Your task to perform on an android device: View the shopping cart on newegg.com. Search for razer naga on newegg.com, select the first entry, and add it to the cart. Image 0: 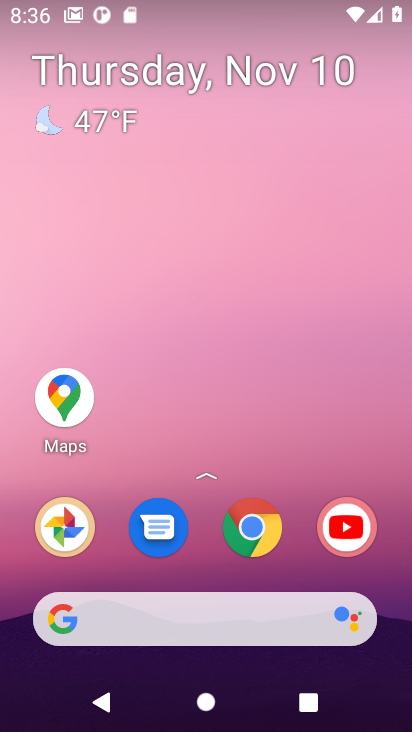
Step 0: click (72, 26)
Your task to perform on an android device: View the shopping cart on newegg.com. Search for razer naga on newegg.com, select the first entry, and add it to the cart. Image 1: 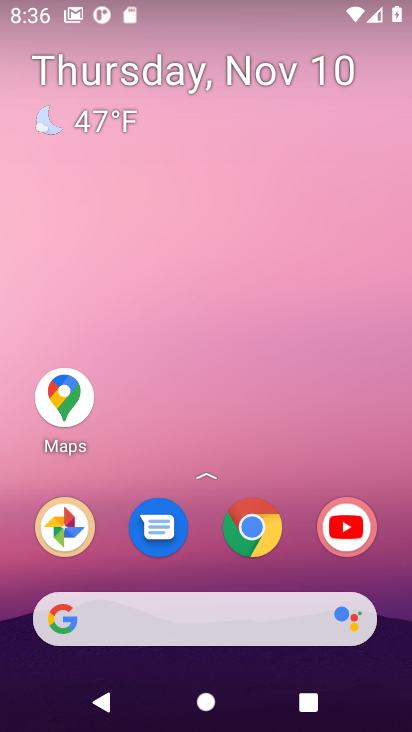
Step 1: drag from (264, 331) to (330, 110)
Your task to perform on an android device: View the shopping cart on newegg.com. Search for razer naga on newegg.com, select the first entry, and add it to the cart. Image 2: 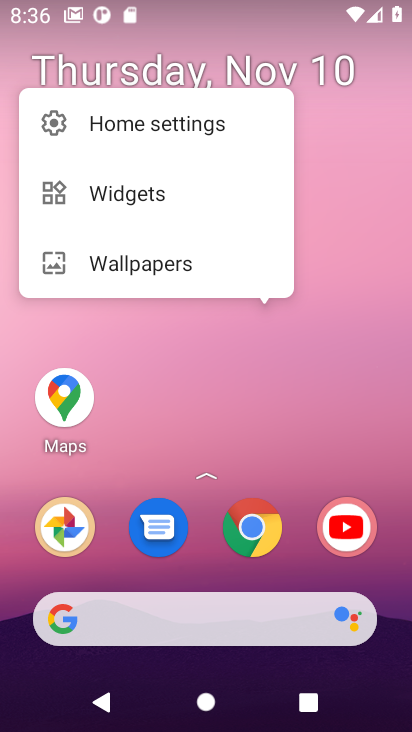
Step 2: click (354, 472)
Your task to perform on an android device: View the shopping cart on newegg.com. Search for razer naga on newegg.com, select the first entry, and add it to the cart. Image 3: 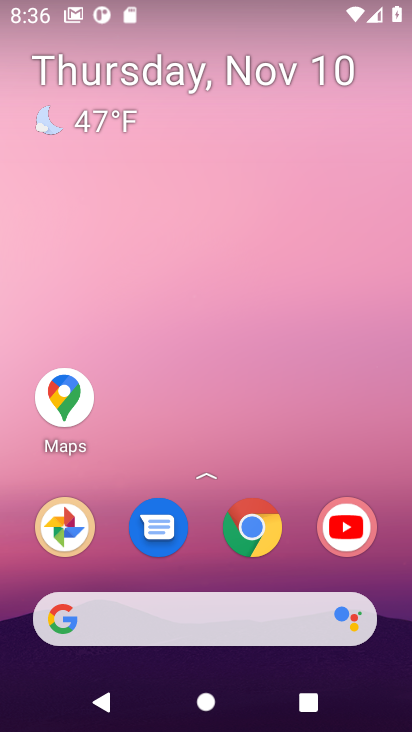
Step 3: drag from (274, 654) to (250, 19)
Your task to perform on an android device: View the shopping cart on newegg.com. Search for razer naga on newegg.com, select the first entry, and add it to the cart. Image 4: 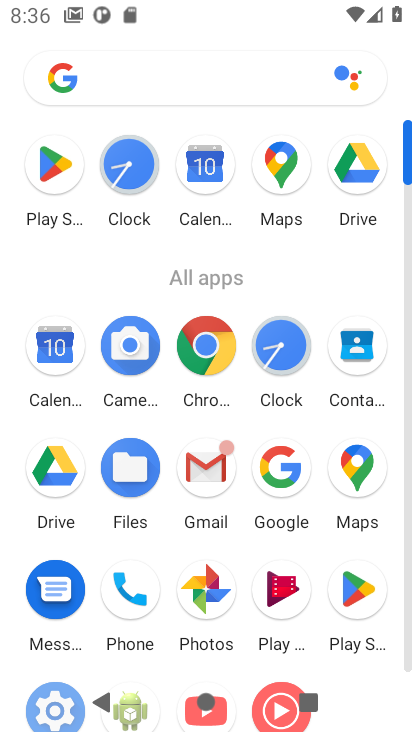
Step 4: click (220, 332)
Your task to perform on an android device: View the shopping cart on newegg.com. Search for razer naga on newegg.com, select the first entry, and add it to the cart. Image 5: 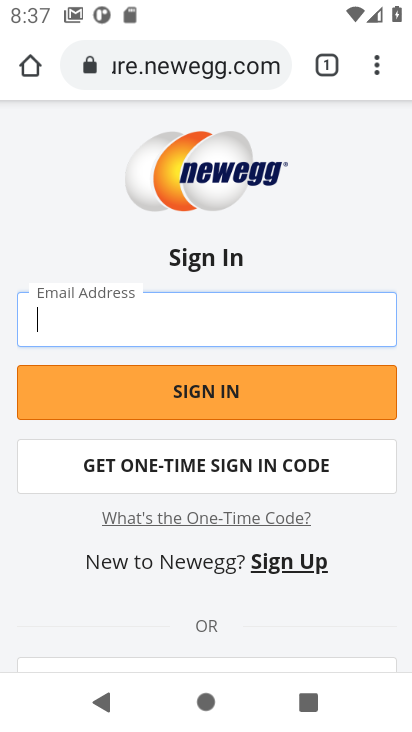
Step 5: press back button
Your task to perform on an android device: View the shopping cart on newegg.com. Search for razer naga on newegg.com, select the first entry, and add it to the cart. Image 6: 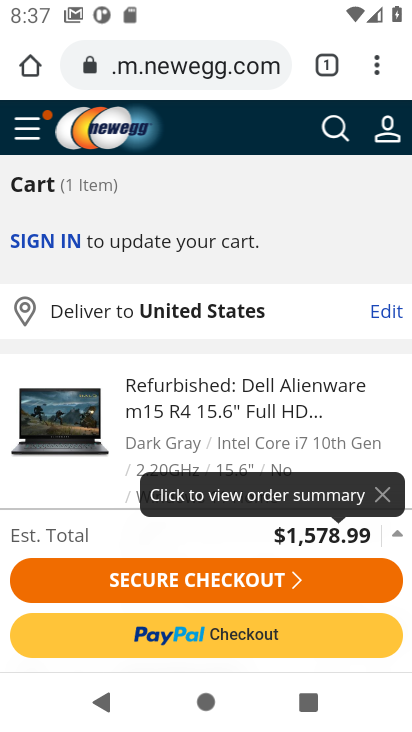
Step 6: press back button
Your task to perform on an android device: View the shopping cart on newegg.com. Search for razer naga on newegg.com, select the first entry, and add it to the cart. Image 7: 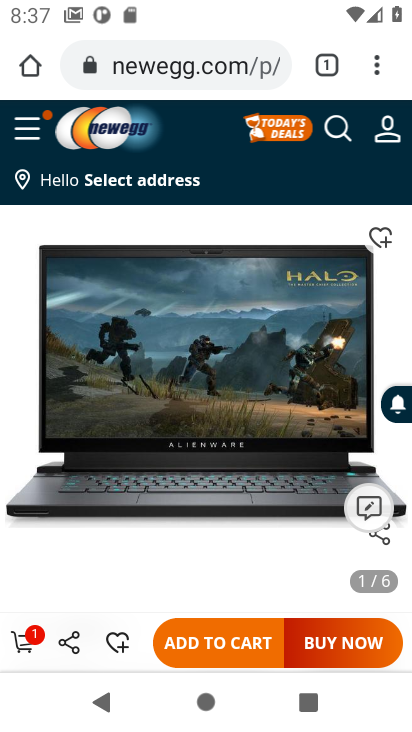
Step 7: click (338, 121)
Your task to perform on an android device: View the shopping cart on newegg.com. Search for razer naga on newegg.com, select the first entry, and add it to the cart. Image 8: 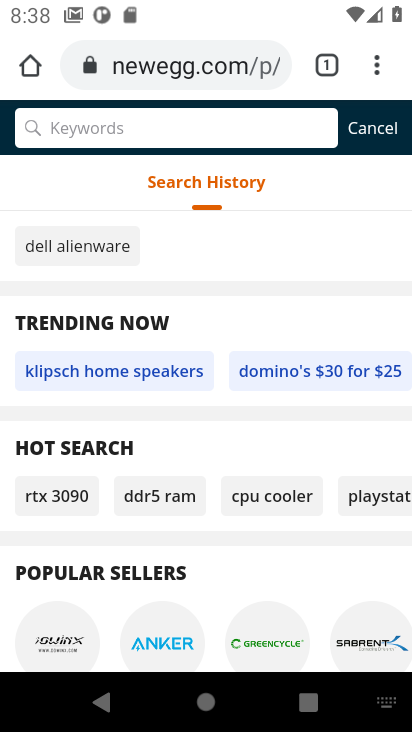
Step 8: drag from (306, 237) to (358, 360)
Your task to perform on an android device: View the shopping cart on newegg.com. Search for razer naga on newegg.com, select the first entry, and add it to the cart. Image 9: 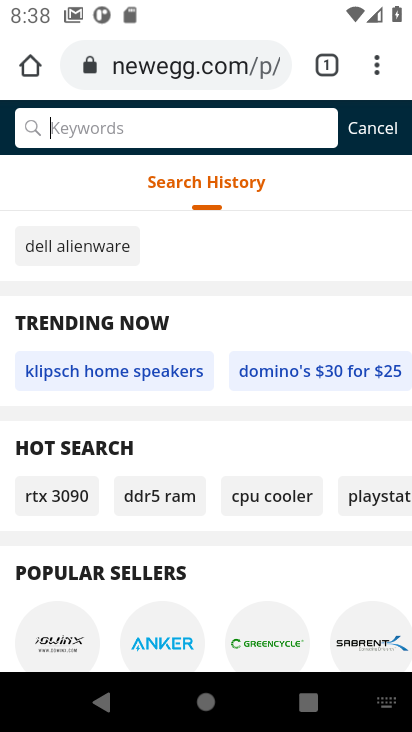
Step 9: drag from (343, 327) to (395, 475)
Your task to perform on an android device: View the shopping cart on newegg.com. Search for razer naga on newegg.com, select the first entry, and add it to the cart. Image 10: 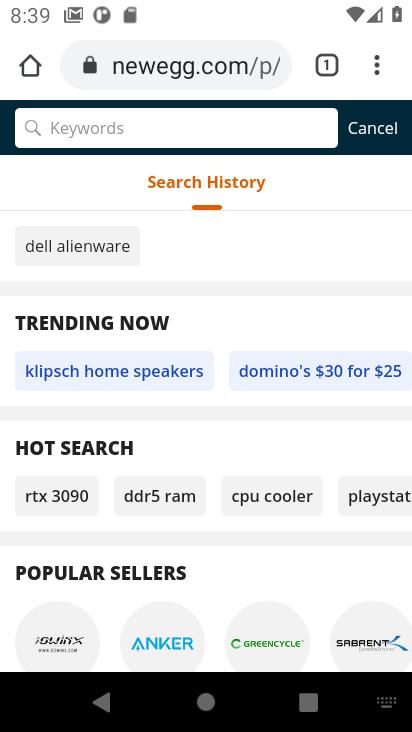
Step 10: type "razer naga"
Your task to perform on an android device: View the shopping cart on newegg.com. Search for razer naga on newegg.com, select the first entry, and add it to the cart. Image 11: 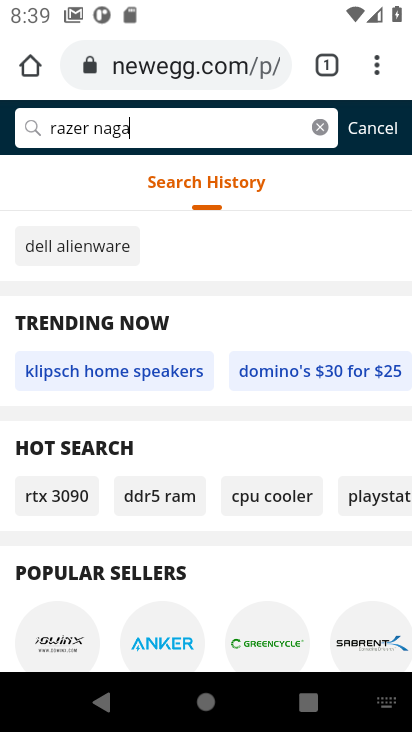
Step 11: press enter
Your task to perform on an android device: View the shopping cart on newegg.com. Search for razer naga on newegg.com, select the first entry, and add it to the cart. Image 12: 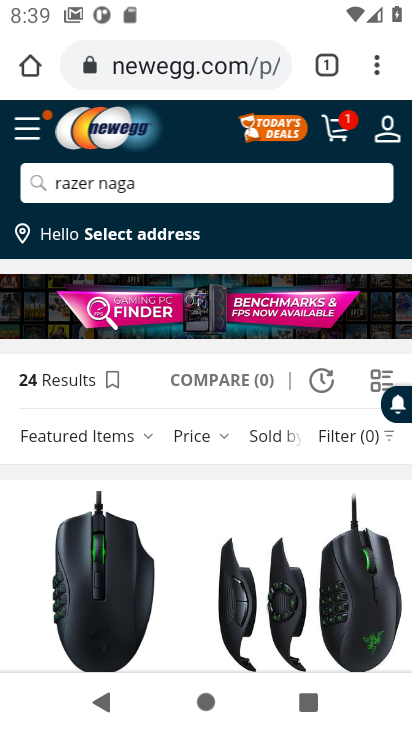
Step 12: drag from (212, 572) to (213, 149)
Your task to perform on an android device: View the shopping cart on newegg.com. Search for razer naga on newegg.com, select the first entry, and add it to the cart. Image 13: 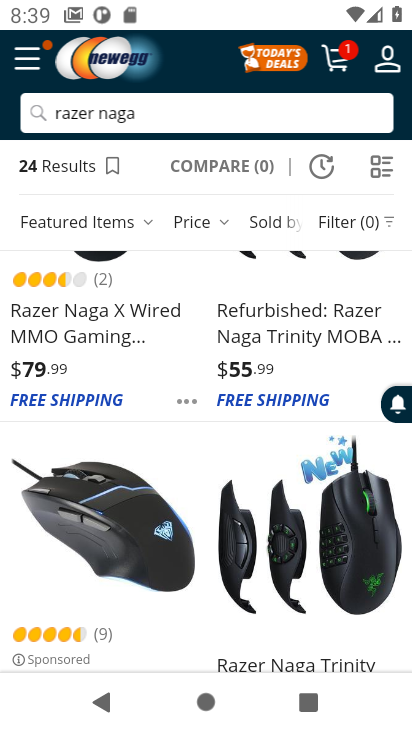
Step 13: click (75, 318)
Your task to perform on an android device: View the shopping cart on newegg.com. Search for razer naga on newegg.com, select the first entry, and add it to the cart. Image 14: 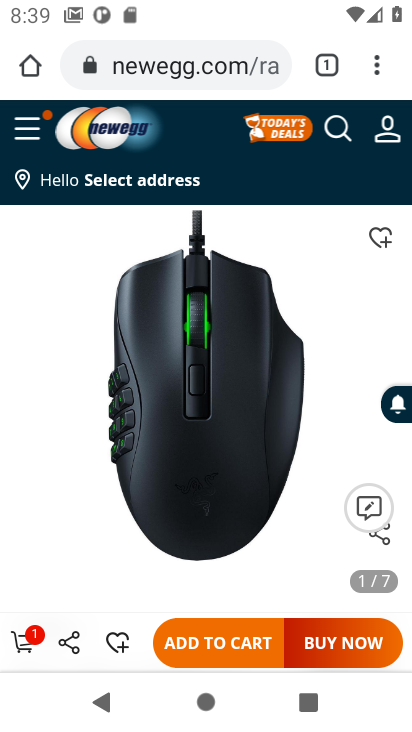
Step 14: click (235, 642)
Your task to perform on an android device: View the shopping cart on newegg.com. Search for razer naga on newegg.com, select the first entry, and add it to the cart. Image 15: 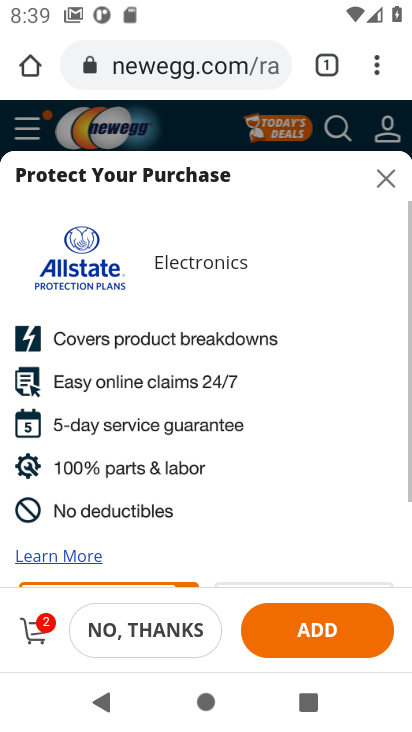
Step 15: click (335, 621)
Your task to perform on an android device: View the shopping cart on newegg.com. Search for razer naga on newegg.com, select the first entry, and add it to the cart. Image 16: 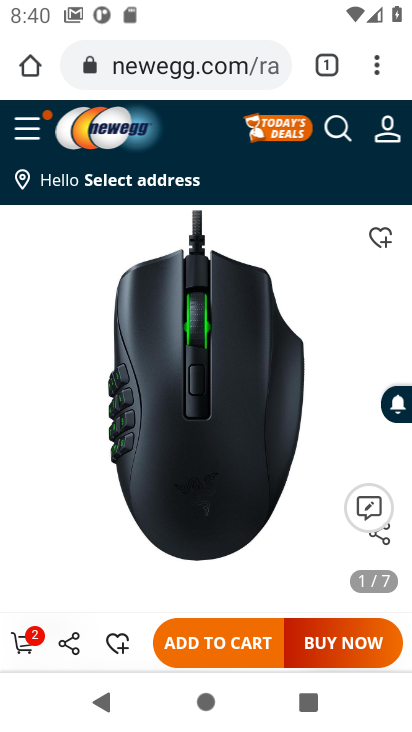
Step 16: click (193, 647)
Your task to perform on an android device: View the shopping cart on newegg.com. Search for razer naga on newegg.com, select the first entry, and add it to the cart. Image 17: 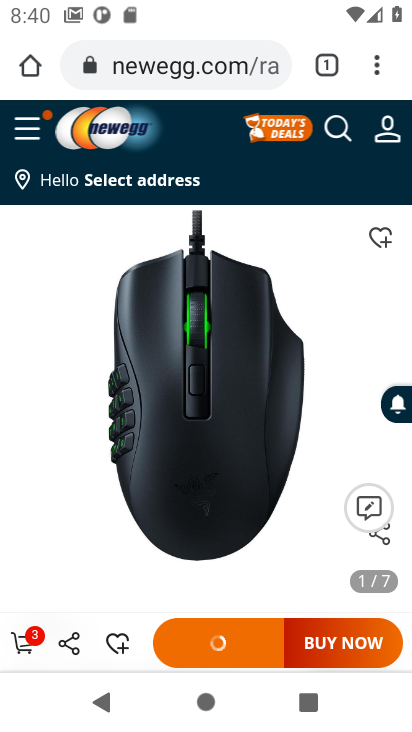
Step 17: task complete